Your task to perform on an android device: toggle priority inbox in the gmail app Image 0: 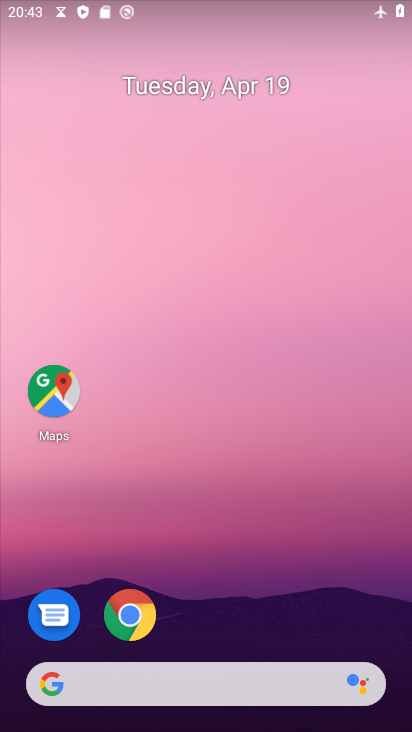
Step 0: drag from (380, 638) to (317, 38)
Your task to perform on an android device: toggle priority inbox in the gmail app Image 1: 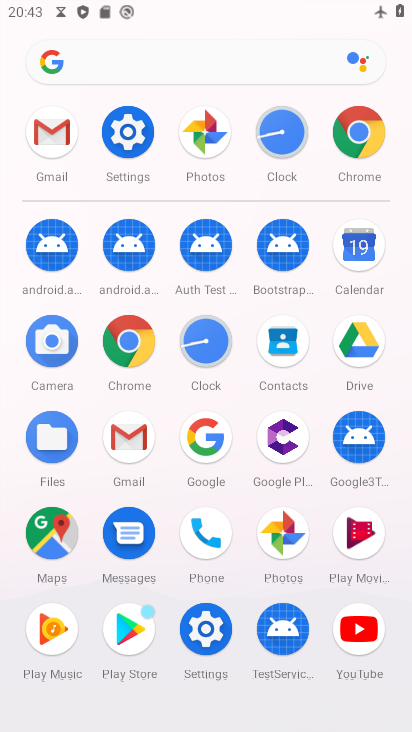
Step 1: drag from (5, 518) to (4, 212)
Your task to perform on an android device: toggle priority inbox in the gmail app Image 2: 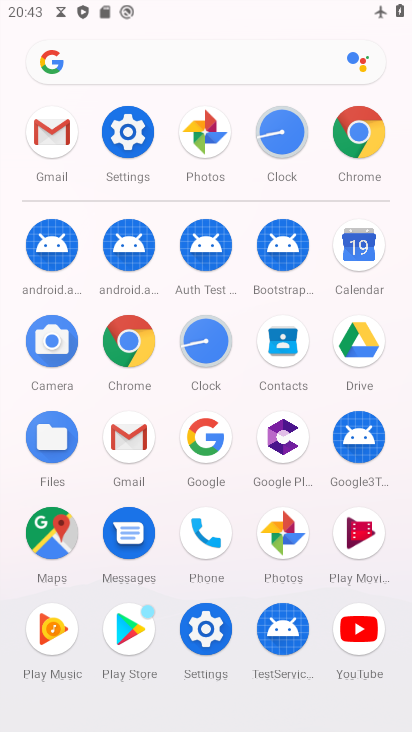
Step 2: click (128, 433)
Your task to perform on an android device: toggle priority inbox in the gmail app Image 3: 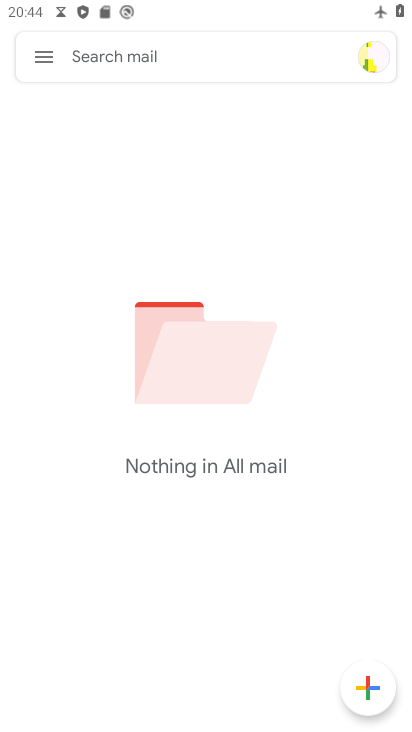
Step 3: click (29, 50)
Your task to perform on an android device: toggle priority inbox in the gmail app Image 4: 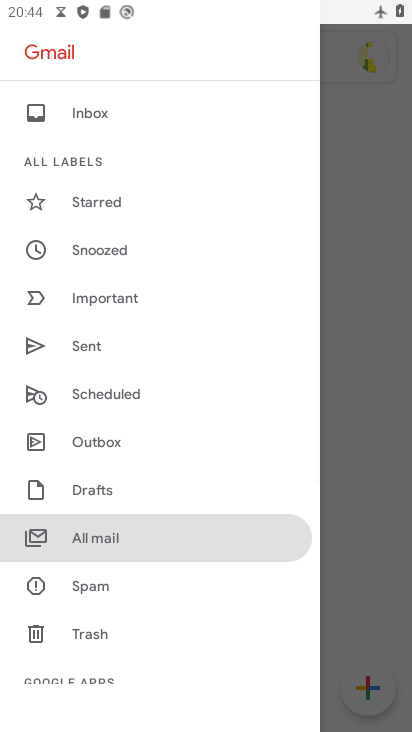
Step 4: drag from (197, 599) to (197, 170)
Your task to perform on an android device: toggle priority inbox in the gmail app Image 5: 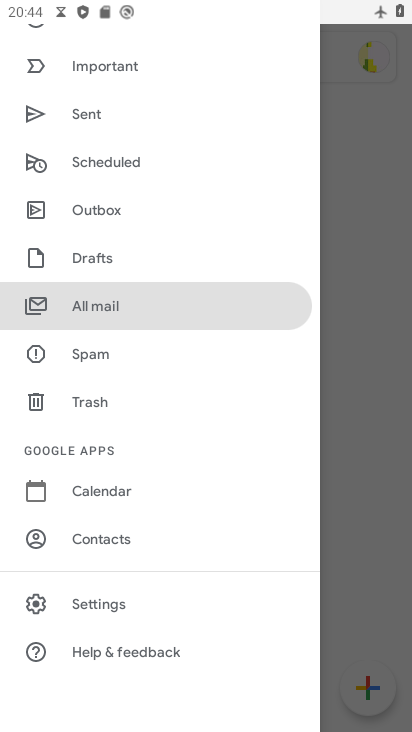
Step 5: drag from (172, 480) to (168, 171)
Your task to perform on an android device: toggle priority inbox in the gmail app Image 6: 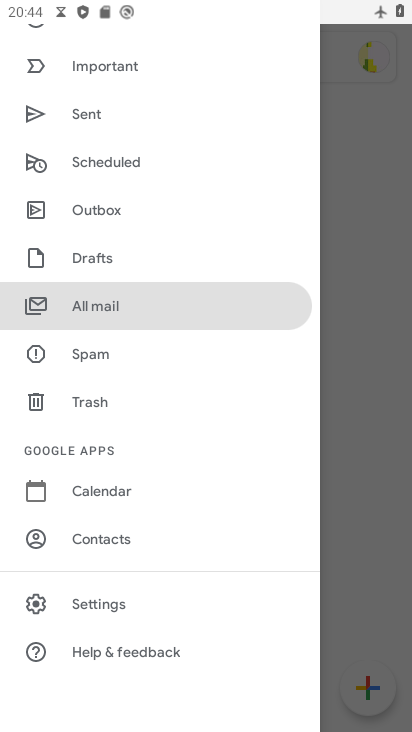
Step 6: click (120, 606)
Your task to perform on an android device: toggle priority inbox in the gmail app Image 7: 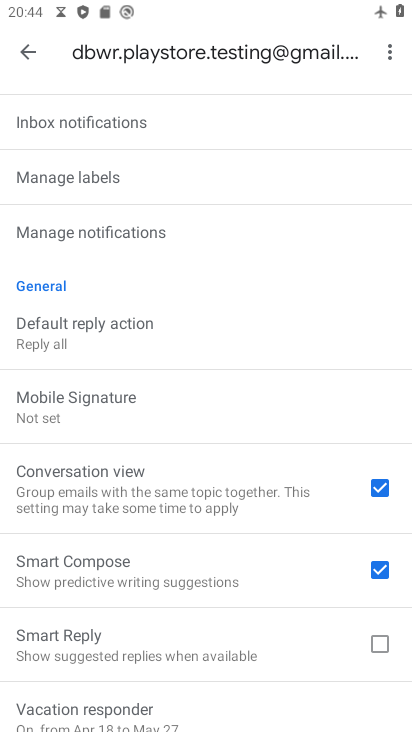
Step 7: drag from (211, 587) to (220, 138)
Your task to perform on an android device: toggle priority inbox in the gmail app Image 8: 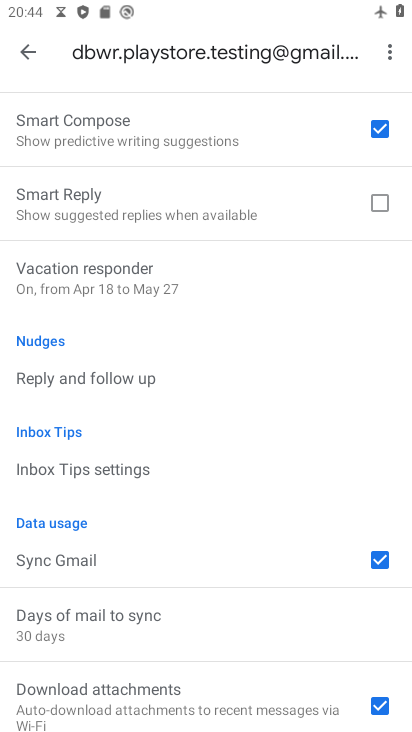
Step 8: drag from (208, 189) to (187, 607)
Your task to perform on an android device: toggle priority inbox in the gmail app Image 9: 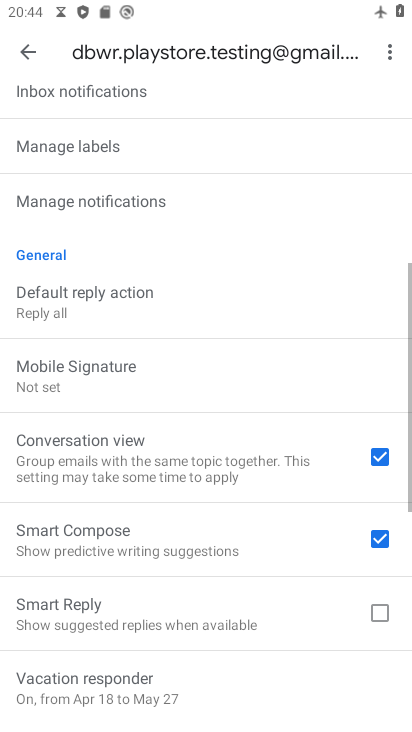
Step 9: drag from (220, 90) to (195, 469)
Your task to perform on an android device: toggle priority inbox in the gmail app Image 10: 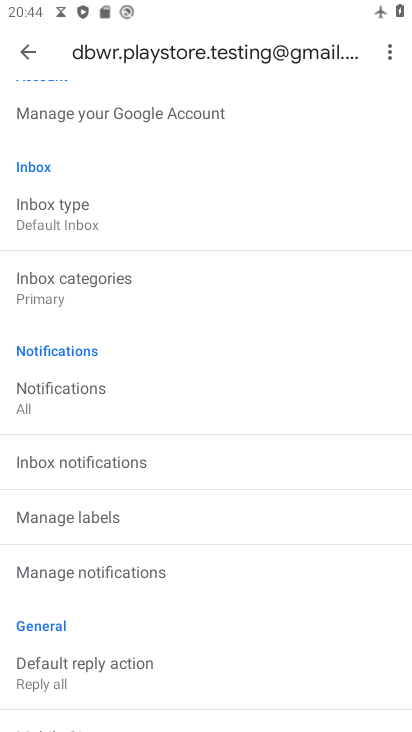
Step 10: click (116, 236)
Your task to perform on an android device: toggle priority inbox in the gmail app Image 11: 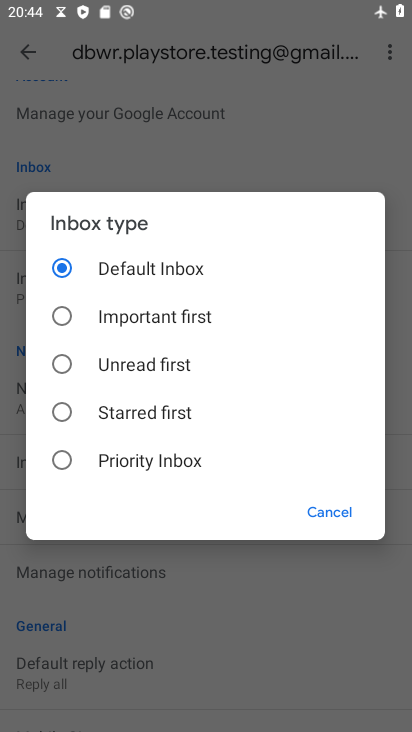
Step 11: click (119, 464)
Your task to perform on an android device: toggle priority inbox in the gmail app Image 12: 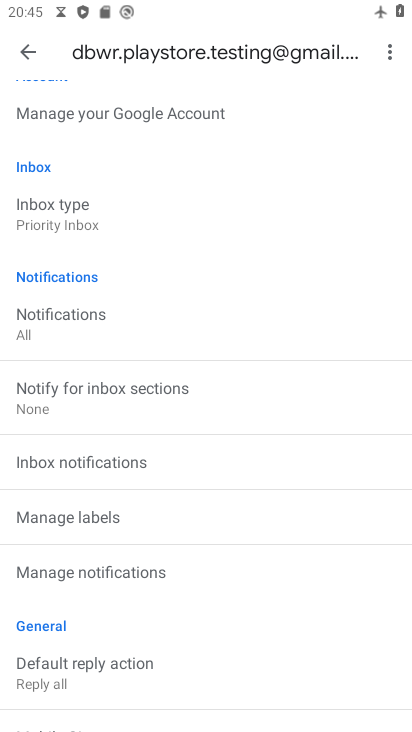
Step 12: task complete